Your task to perform on an android device: Open internet settings Image 0: 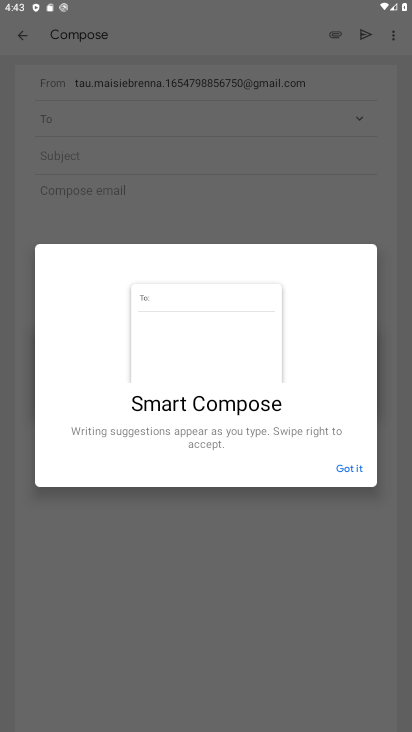
Step 0: press home button
Your task to perform on an android device: Open internet settings Image 1: 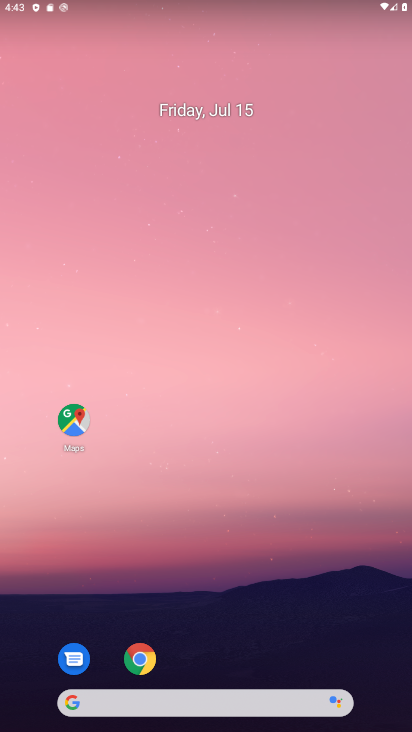
Step 1: click (148, 649)
Your task to perform on an android device: Open internet settings Image 2: 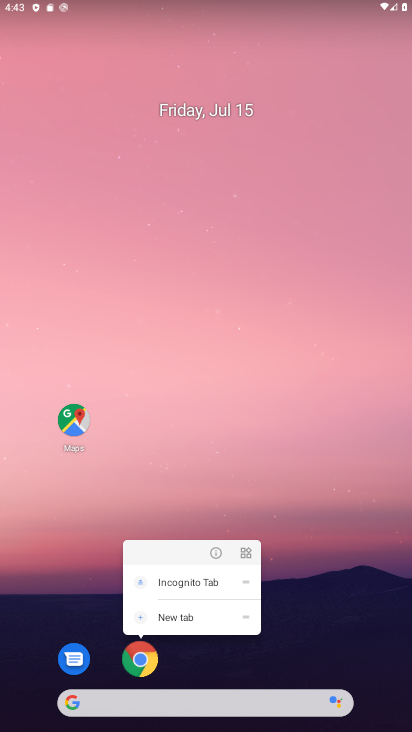
Step 2: click (356, 645)
Your task to perform on an android device: Open internet settings Image 3: 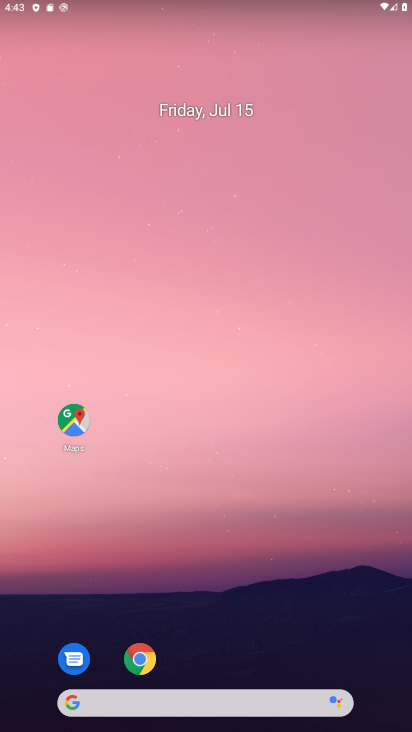
Step 3: drag from (356, 645) to (285, 126)
Your task to perform on an android device: Open internet settings Image 4: 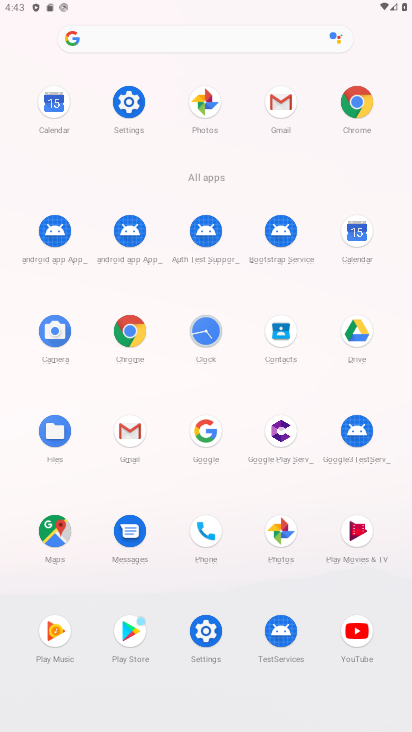
Step 4: click (131, 108)
Your task to perform on an android device: Open internet settings Image 5: 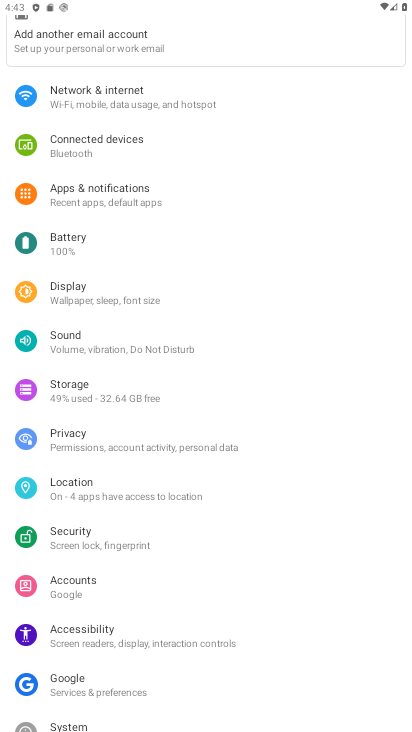
Step 5: click (129, 109)
Your task to perform on an android device: Open internet settings Image 6: 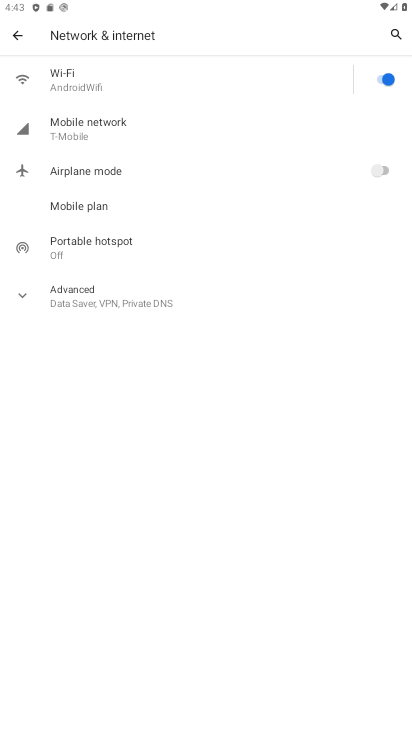
Step 6: task complete